Your task to perform on an android device: Go to calendar. Show me events next week Image 0: 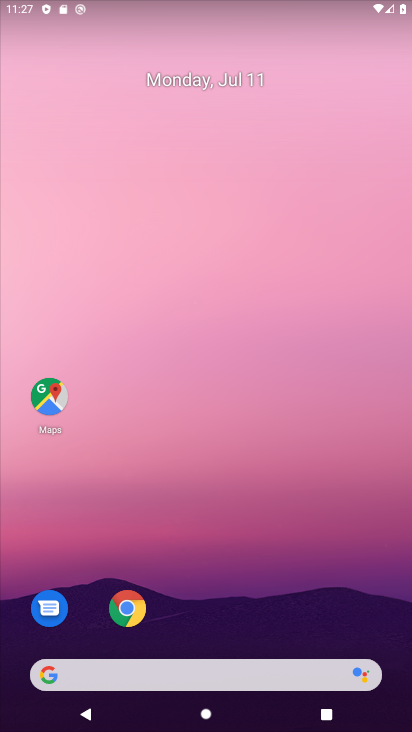
Step 0: click (172, 90)
Your task to perform on an android device: Go to calendar. Show me events next week Image 1: 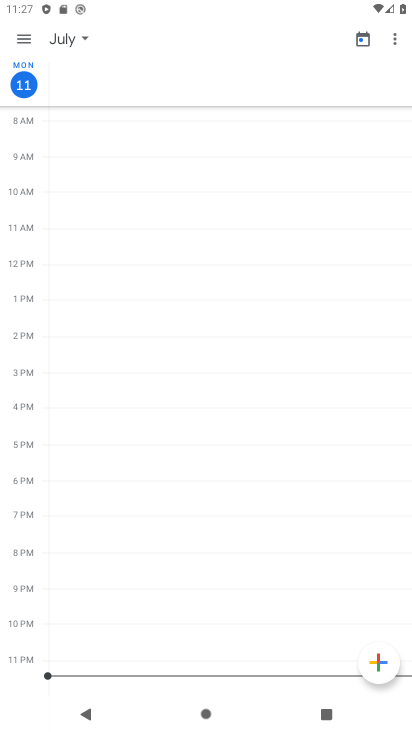
Step 1: click (79, 36)
Your task to perform on an android device: Go to calendar. Show me events next week Image 2: 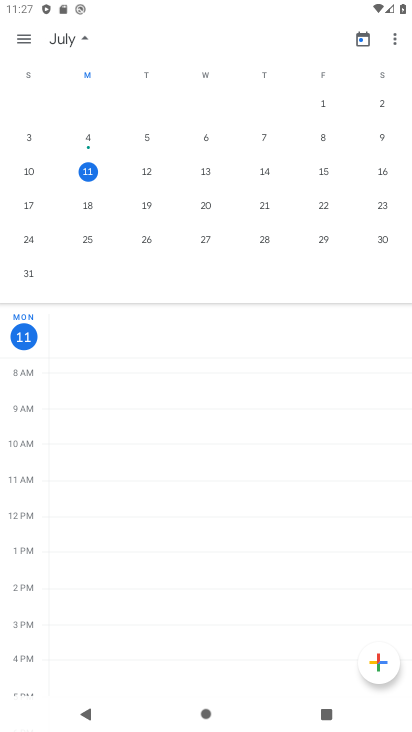
Step 2: click (135, 203)
Your task to perform on an android device: Go to calendar. Show me events next week Image 3: 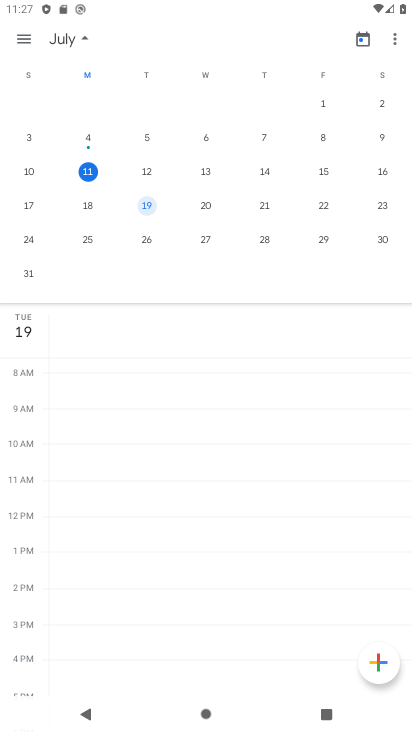
Step 3: task complete